Your task to perform on an android device: Show me popular games on the Play Store Image 0: 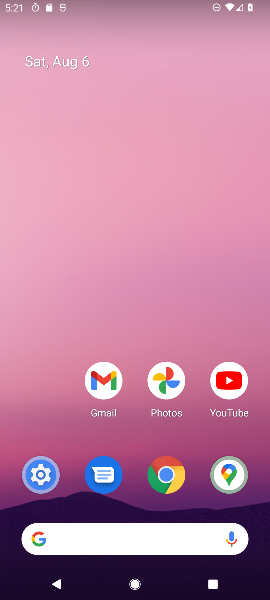
Step 0: drag from (12, 583) to (84, 228)
Your task to perform on an android device: Show me popular games on the Play Store Image 1: 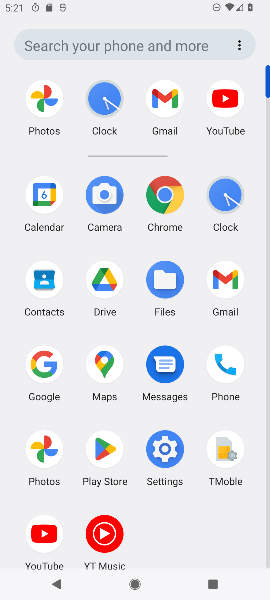
Step 1: click (116, 446)
Your task to perform on an android device: Show me popular games on the Play Store Image 2: 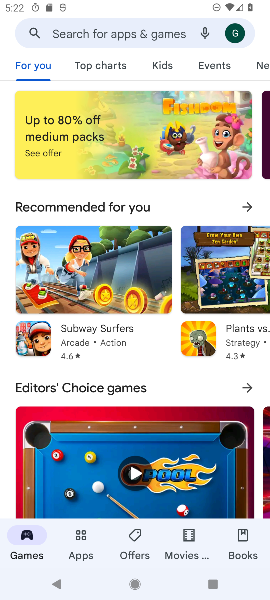
Step 2: click (82, 33)
Your task to perform on an android device: Show me popular games on the Play Store Image 3: 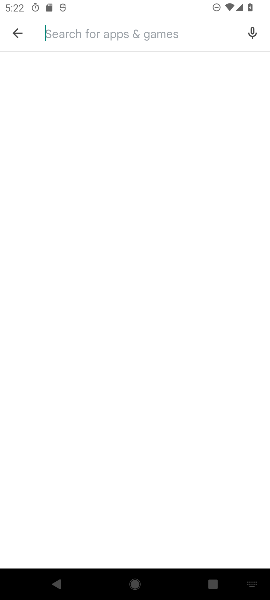
Step 3: type "popular games"
Your task to perform on an android device: Show me popular games on the Play Store Image 4: 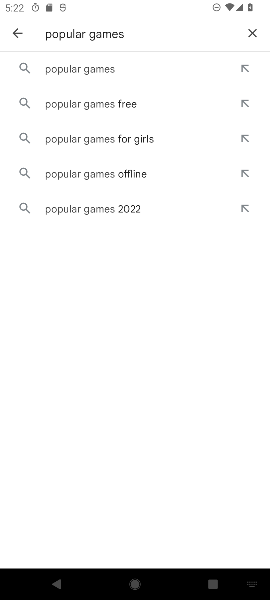
Step 4: click (115, 69)
Your task to perform on an android device: Show me popular games on the Play Store Image 5: 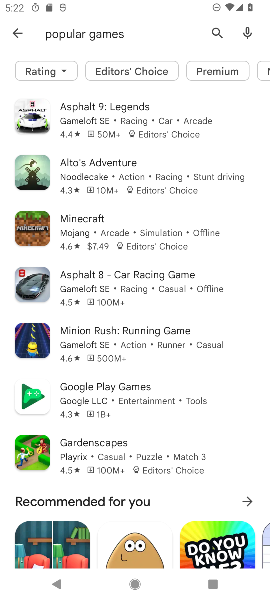
Step 5: task complete